Your task to perform on an android device: turn on improve location accuracy Image 0: 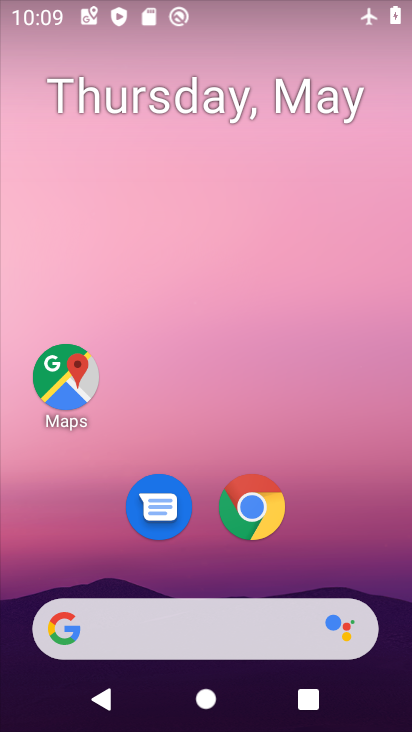
Step 0: drag from (222, 562) to (252, 91)
Your task to perform on an android device: turn on improve location accuracy Image 1: 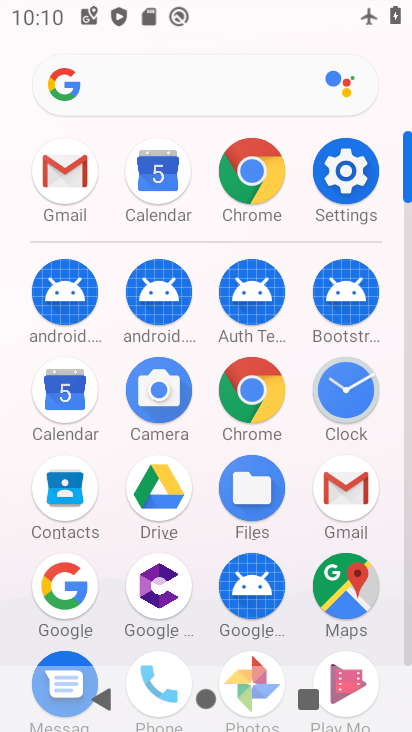
Step 1: click (342, 195)
Your task to perform on an android device: turn on improve location accuracy Image 2: 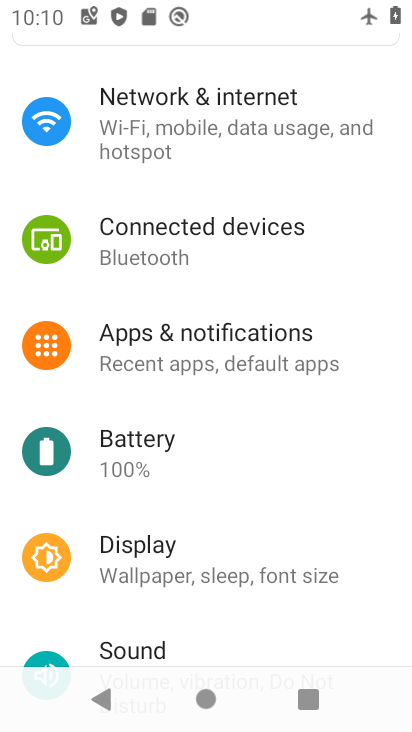
Step 2: drag from (244, 522) to (252, 126)
Your task to perform on an android device: turn on improve location accuracy Image 3: 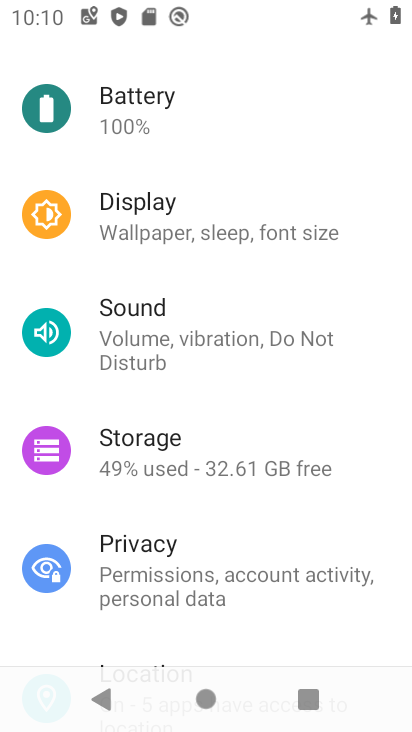
Step 3: drag from (202, 582) to (320, 113)
Your task to perform on an android device: turn on improve location accuracy Image 4: 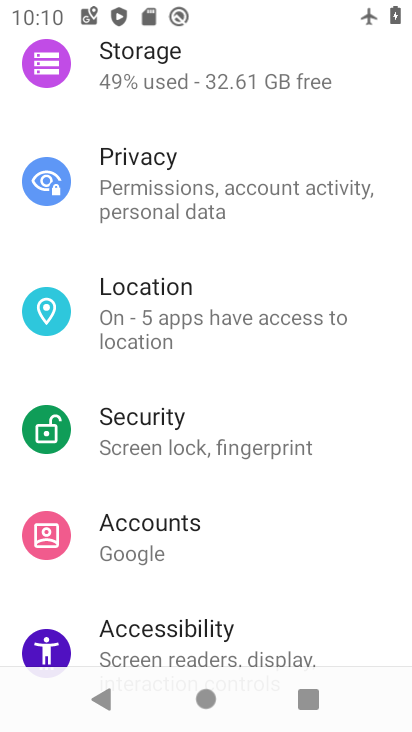
Step 4: drag from (212, 533) to (269, 114)
Your task to perform on an android device: turn on improve location accuracy Image 5: 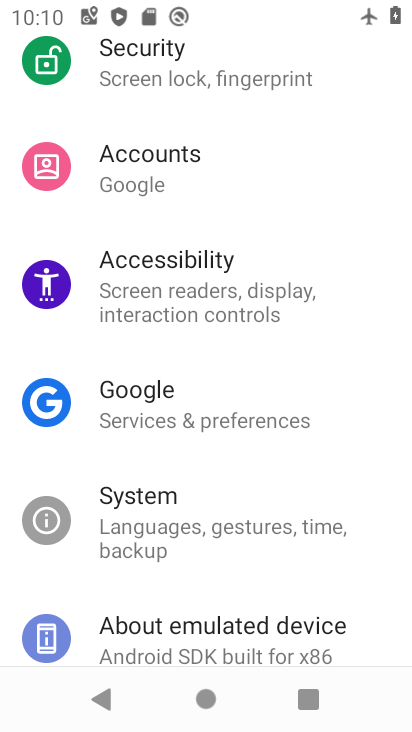
Step 5: drag from (181, 222) to (132, 605)
Your task to perform on an android device: turn on improve location accuracy Image 6: 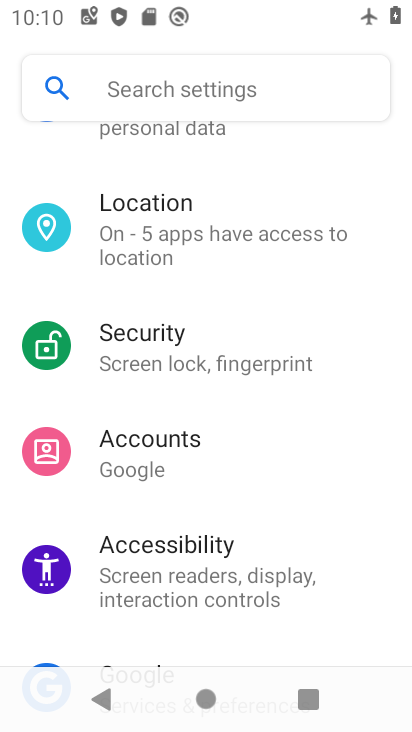
Step 6: drag from (138, 324) to (113, 640)
Your task to perform on an android device: turn on improve location accuracy Image 7: 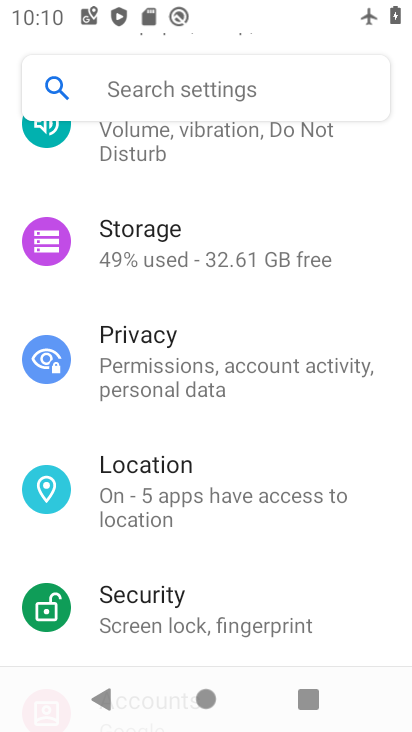
Step 7: drag from (145, 324) to (144, 676)
Your task to perform on an android device: turn on improve location accuracy Image 8: 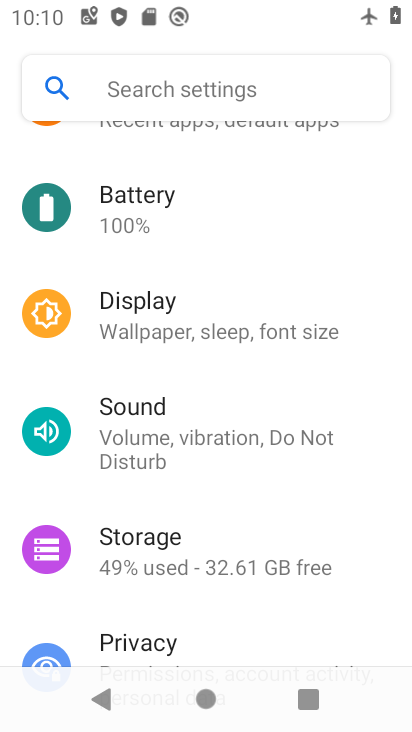
Step 8: drag from (153, 438) to (141, 645)
Your task to perform on an android device: turn on improve location accuracy Image 9: 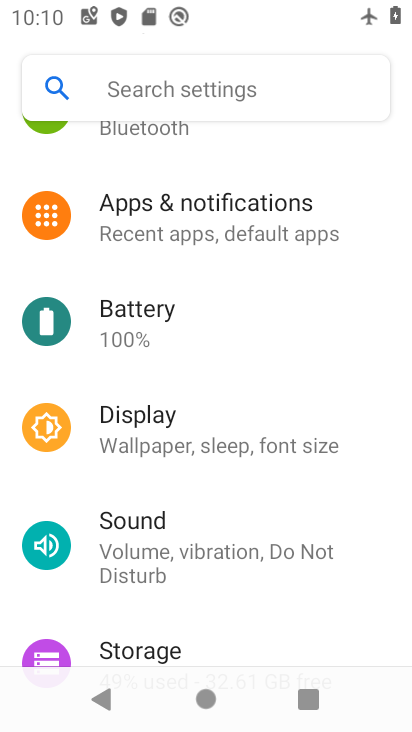
Step 9: drag from (177, 336) to (143, 607)
Your task to perform on an android device: turn on improve location accuracy Image 10: 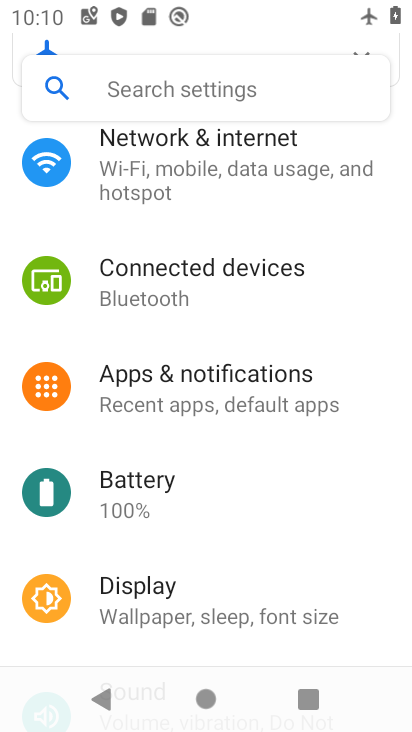
Step 10: drag from (288, 290) to (246, 573)
Your task to perform on an android device: turn on improve location accuracy Image 11: 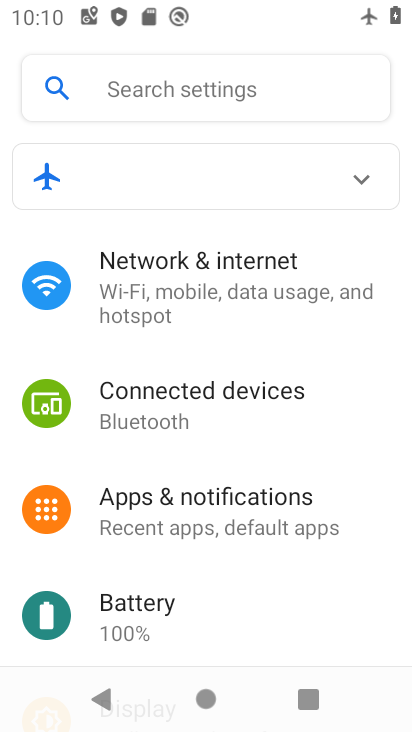
Step 11: drag from (248, 480) to (300, 162)
Your task to perform on an android device: turn on improve location accuracy Image 12: 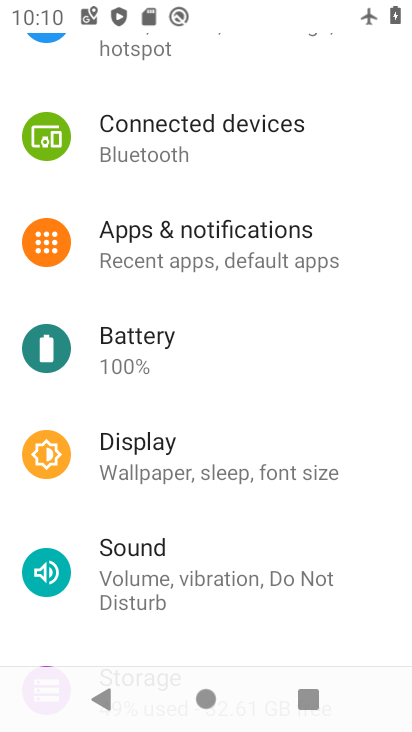
Step 12: drag from (193, 549) to (212, 221)
Your task to perform on an android device: turn on improve location accuracy Image 13: 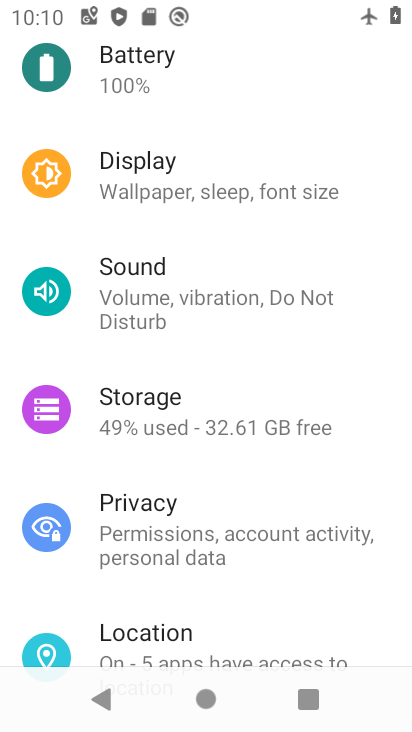
Step 13: click (196, 628)
Your task to perform on an android device: turn on improve location accuracy Image 14: 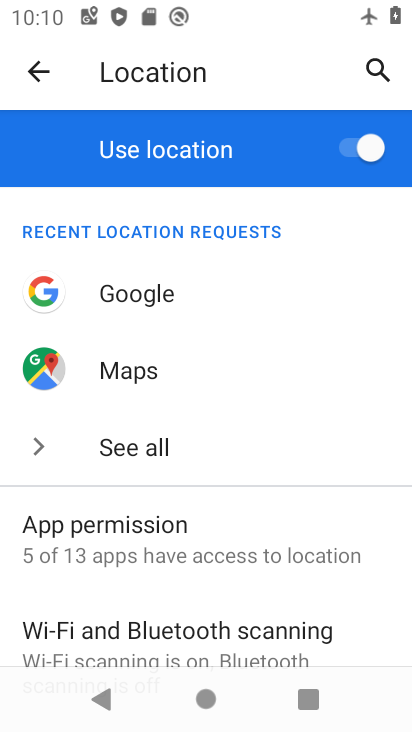
Step 14: drag from (226, 536) to (229, 181)
Your task to perform on an android device: turn on improve location accuracy Image 15: 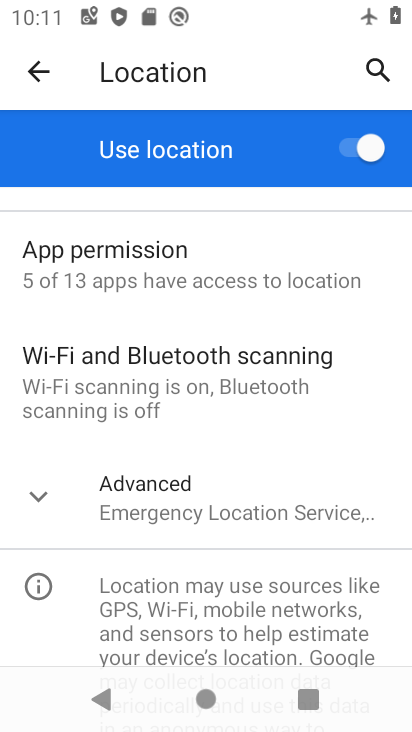
Step 15: click (212, 501)
Your task to perform on an android device: turn on improve location accuracy Image 16: 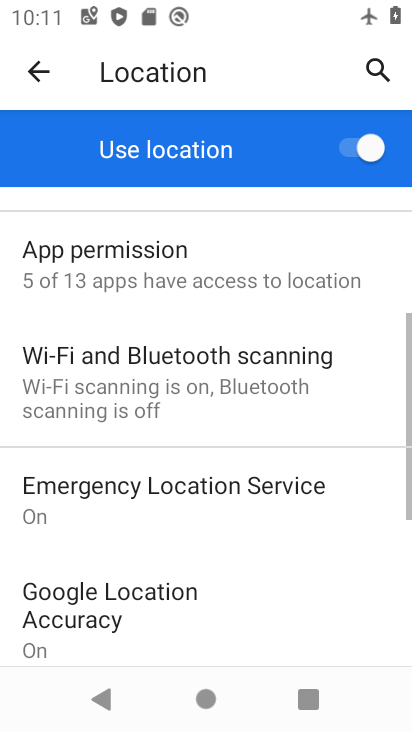
Step 16: drag from (226, 579) to (264, 272)
Your task to perform on an android device: turn on improve location accuracy Image 17: 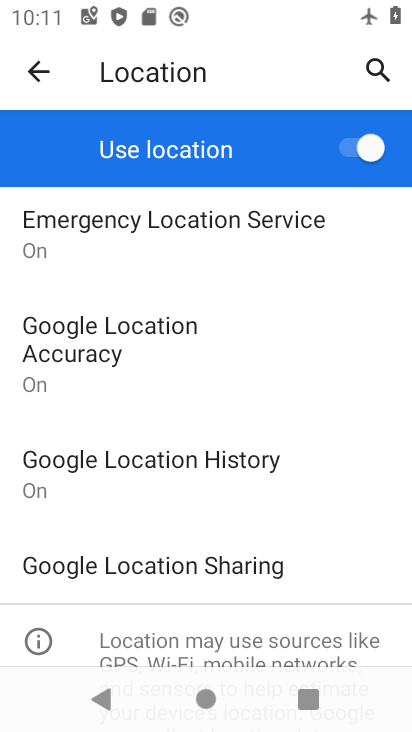
Step 17: click (221, 348)
Your task to perform on an android device: turn on improve location accuracy Image 18: 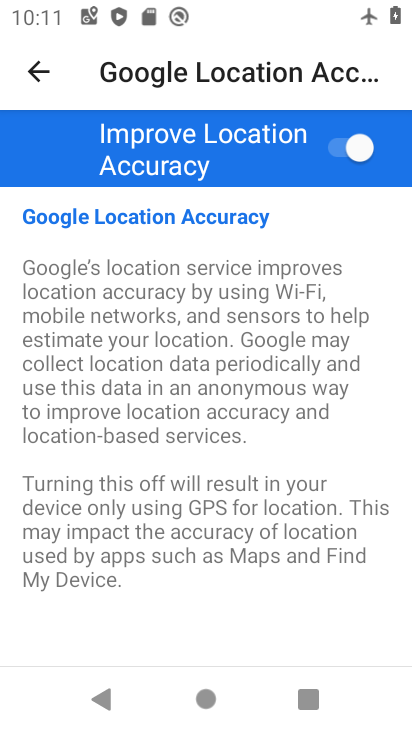
Step 18: task complete